Your task to perform on an android device: turn on location history Image 0: 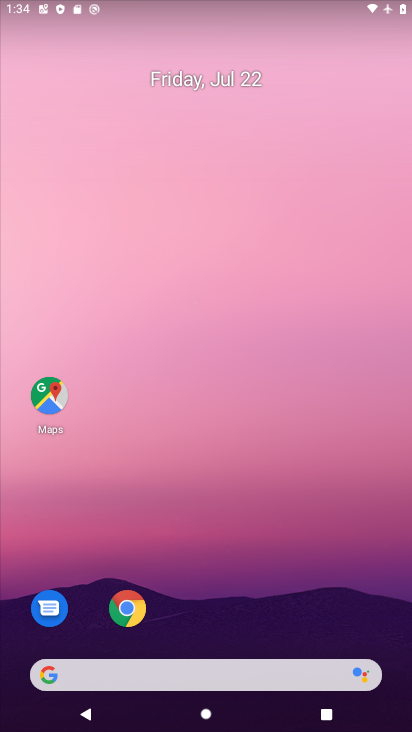
Step 0: drag from (242, 724) to (242, 17)
Your task to perform on an android device: turn on location history Image 1: 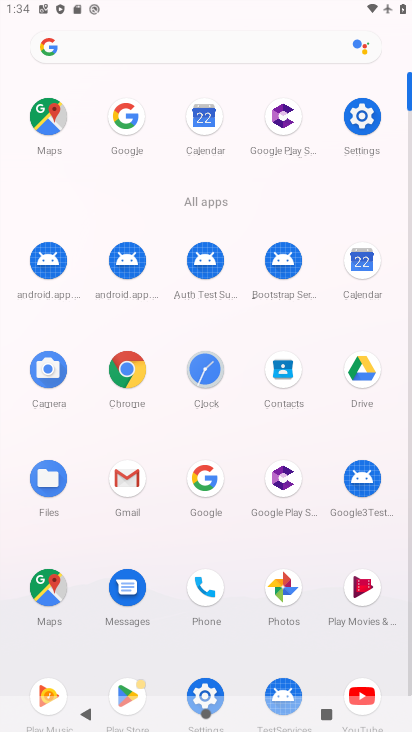
Step 1: click (361, 110)
Your task to perform on an android device: turn on location history Image 2: 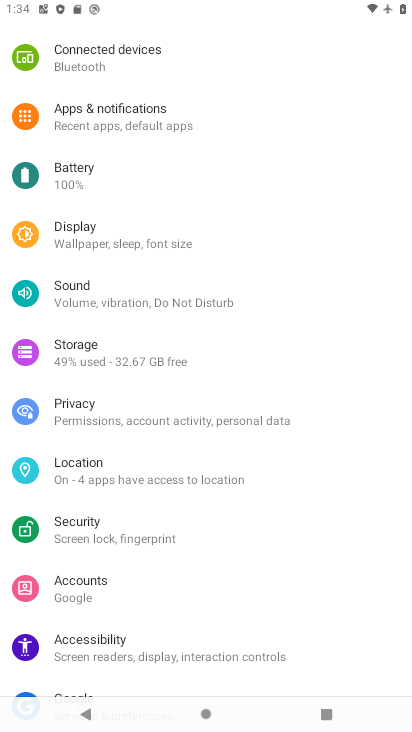
Step 2: click (65, 460)
Your task to perform on an android device: turn on location history Image 3: 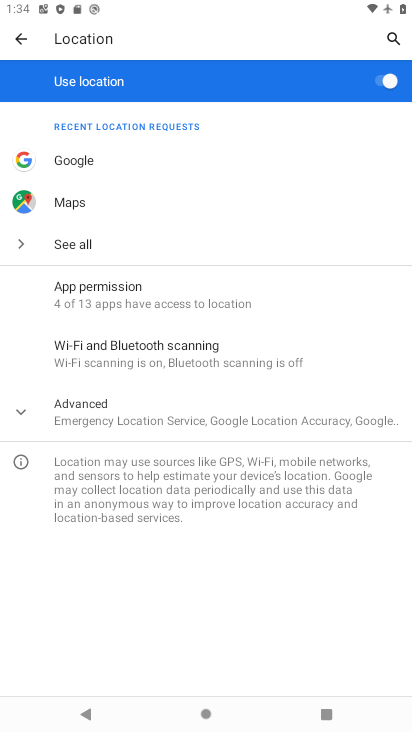
Step 3: click (90, 418)
Your task to perform on an android device: turn on location history Image 4: 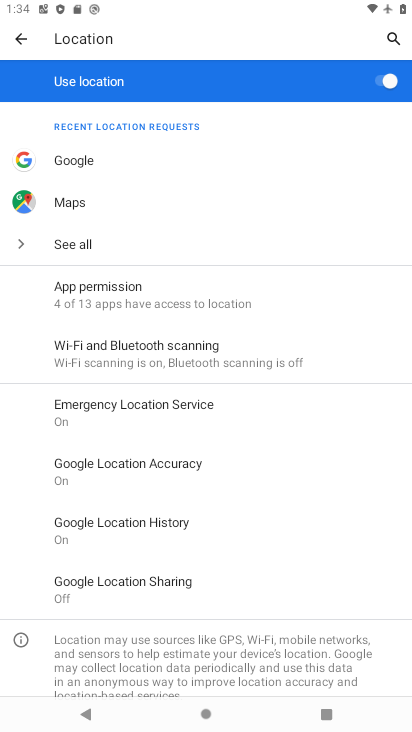
Step 4: click (135, 522)
Your task to perform on an android device: turn on location history Image 5: 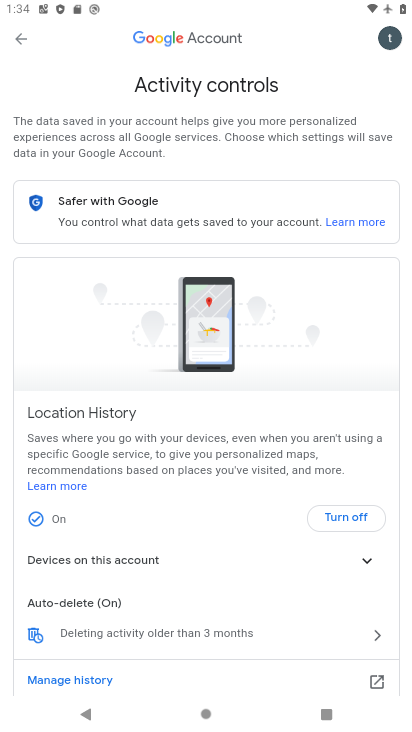
Step 5: click (344, 515)
Your task to perform on an android device: turn on location history Image 6: 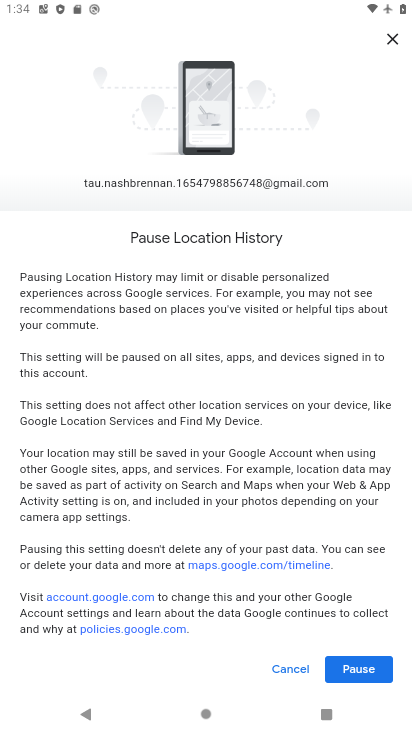
Step 6: click (374, 664)
Your task to perform on an android device: turn on location history Image 7: 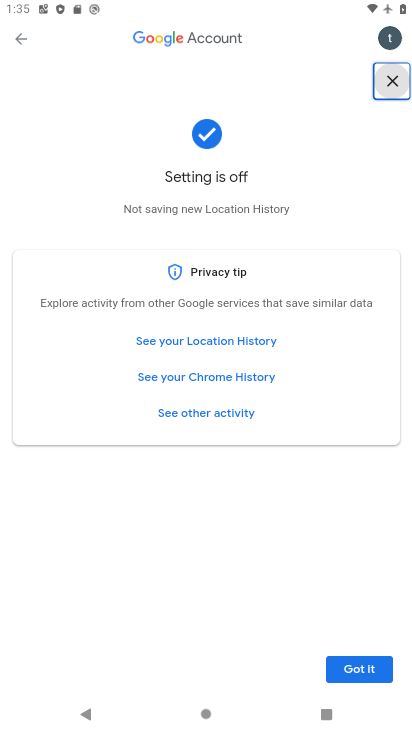
Step 7: task complete